Your task to perform on an android device: Go to location settings Image 0: 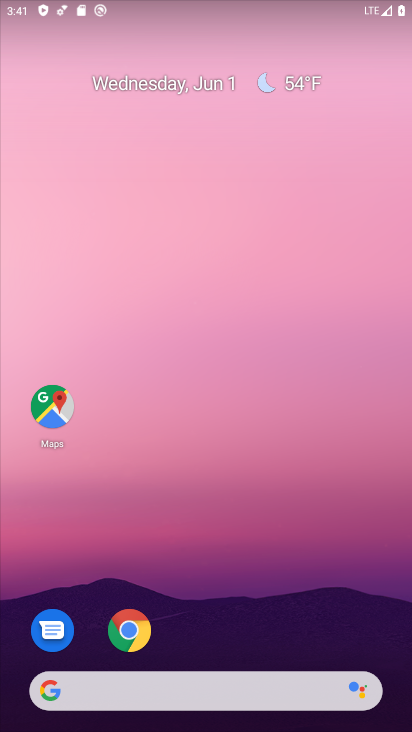
Step 0: drag from (302, 551) to (252, 64)
Your task to perform on an android device: Go to location settings Image 1: 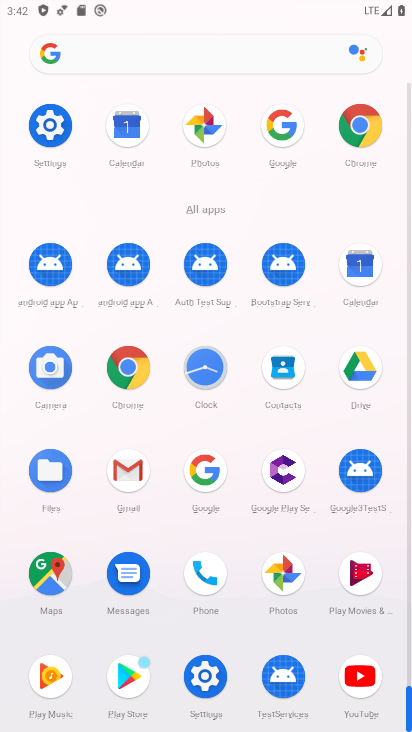
Step 1: click (203, 672)
Your task to perform on an android device: Go to location settings Image 2: 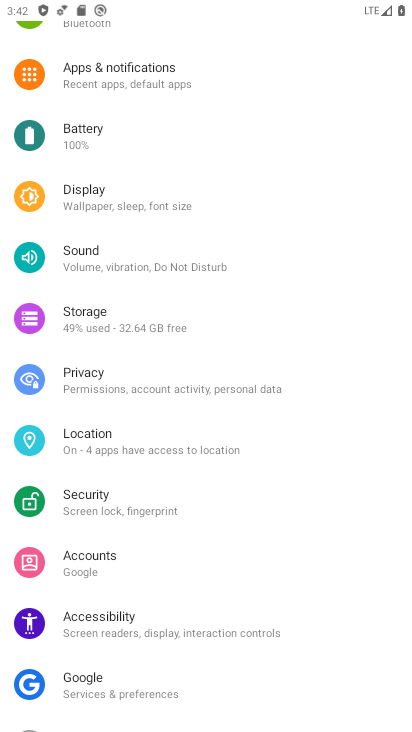
Step 2: click (138, 434)
Your task to perform on an android device: Go to location settings Image 3: 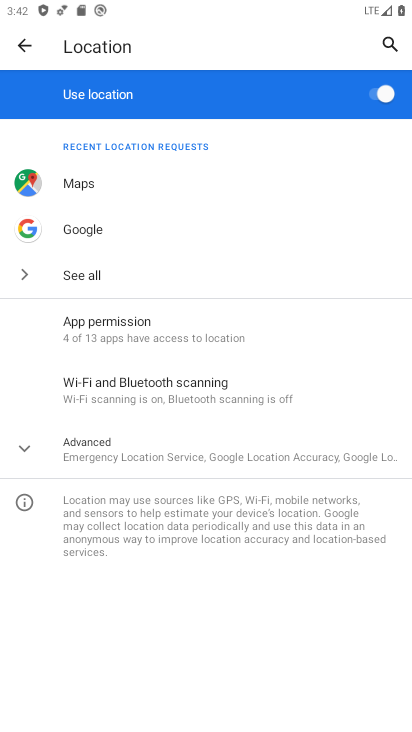
Step 3: click (31, 445)
Your task to perform on an android device: Go to location settings Image 4: 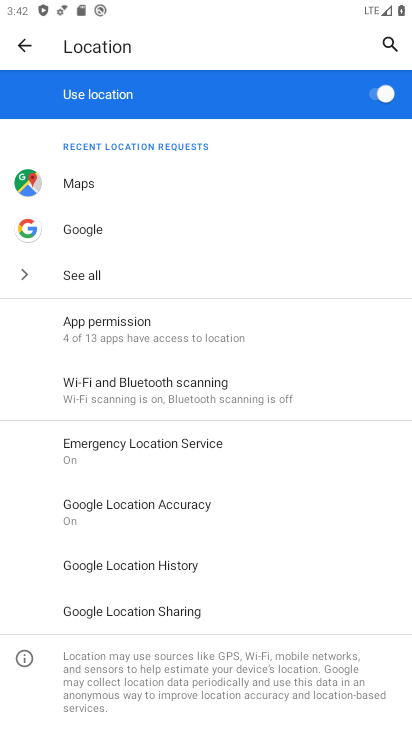
Step 4: task complete